Your task to perform on an android device: Open Chrome and go to the settings page Image 0: 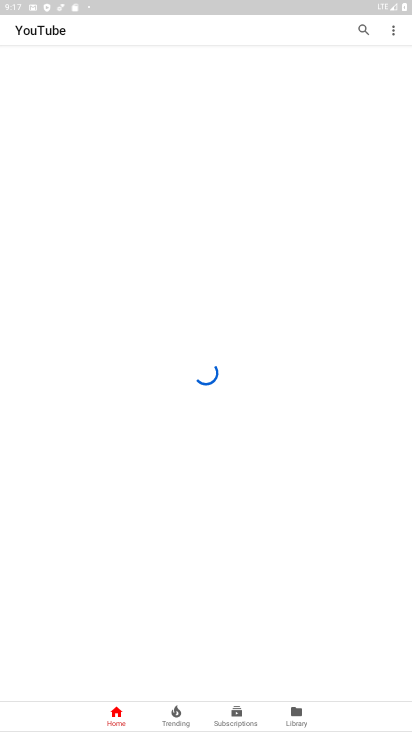
Step 0: drag from (262, 610) to (206, 337)
Your task to perform on an android device: Open Chrome and go to the settings page Image 1: 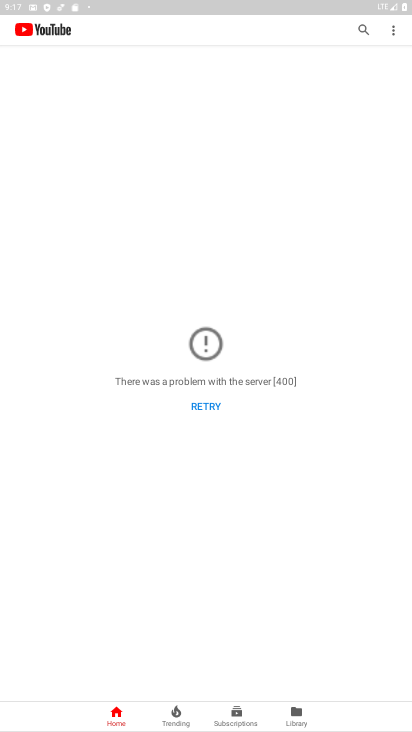
Step 1: press home button
Your task to perform on an android device: Open Chrome and go to the settings page Image 2: 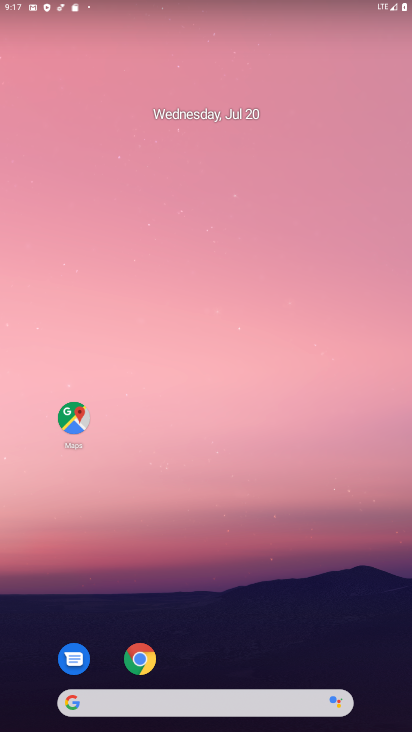
Step 2: click (144, 658)
Your task to perform on an android device: Open Chrome and go to the settings page Image 3: 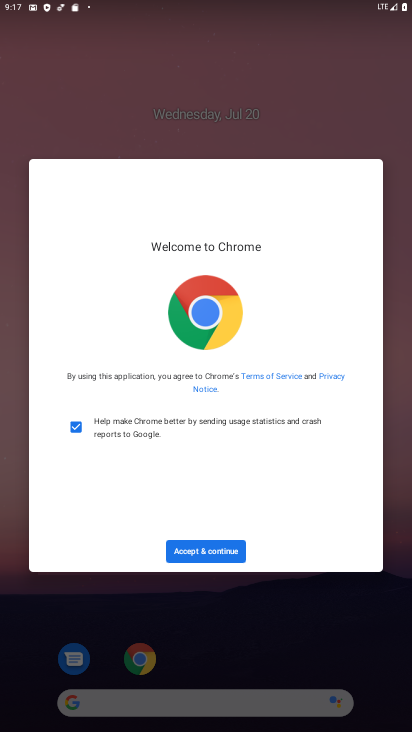
Step 3: click (214, 552)
Your task to perform on an android device: Open Chrome and go to the settings page Image 4: 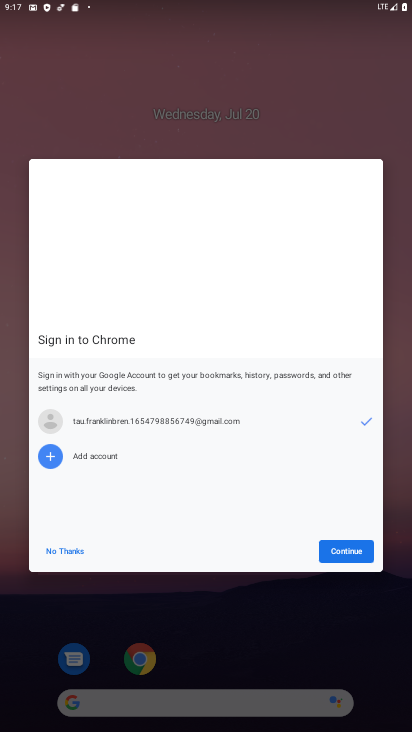
Step 4: click (352, 553)
Your task to perform on an android device: Open Chrome and go to the settings page Image 5: 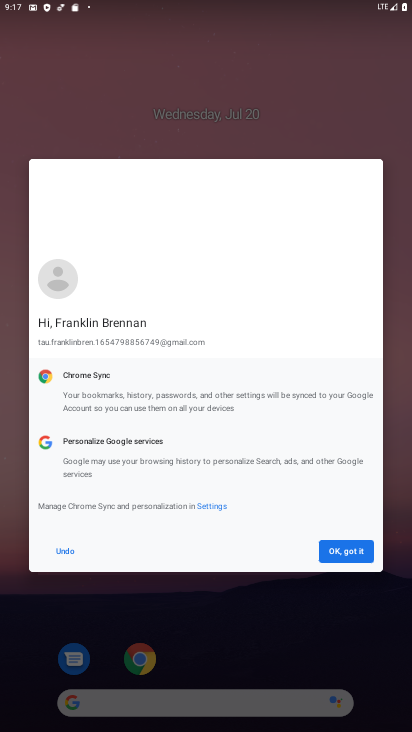
Step 5: click (342, 553)
Your task to perform on an android device: Open Chrome and go to the settings page Image 6: 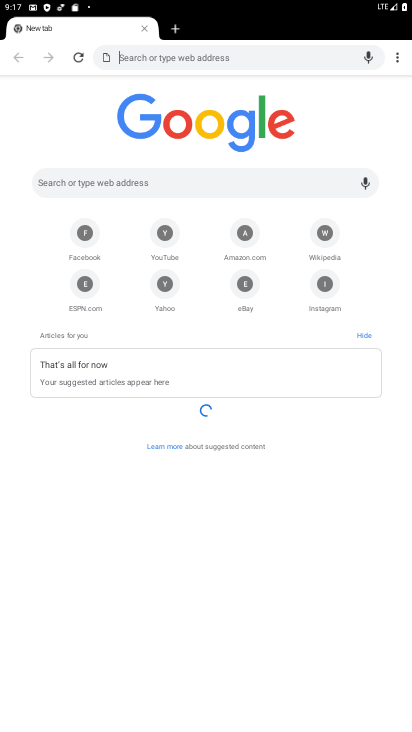
Step 6: click (401, 55)
Your task to perform on an android device: Open Chrome and go to the settings page Image 7: 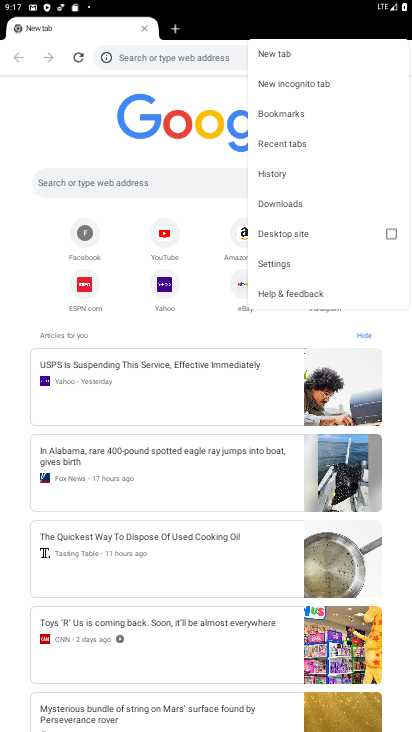
Step 7: click (273, 256)
Your task to perform on an android device: Open Chrome and go to the settings page Image 8: 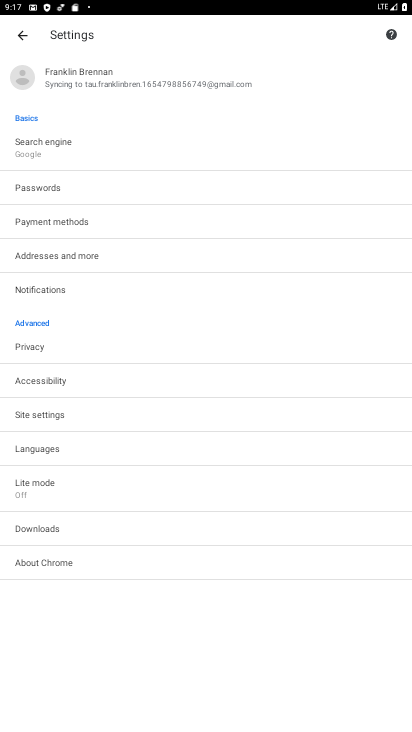
Step 8: task complete